Your task to perform on an android device: Add "usb-a" to the cart on target, then select checkout. Image 0: 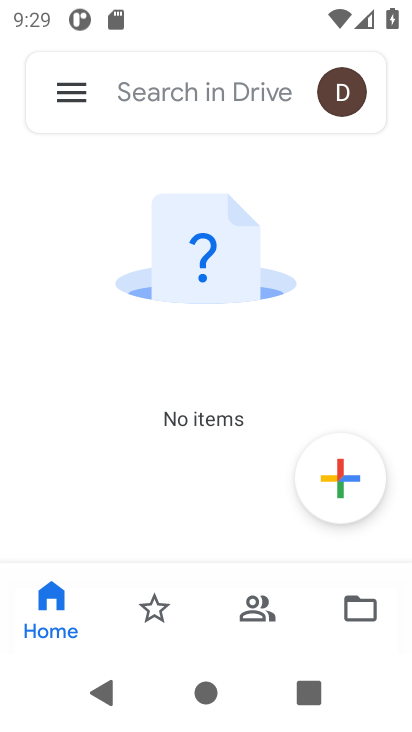
Step 0: press home button
Your task to perform on an android device: Add "usb-a" to the cart on target, then select checkout. Image 1: 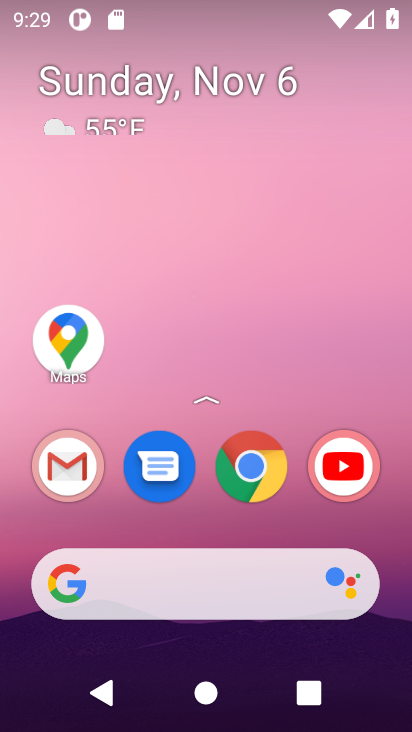
Step 1: click (265, 457)
Your task to perform on an android device: Add "usb-a" to the cart on target, then select checkout. Image 2: 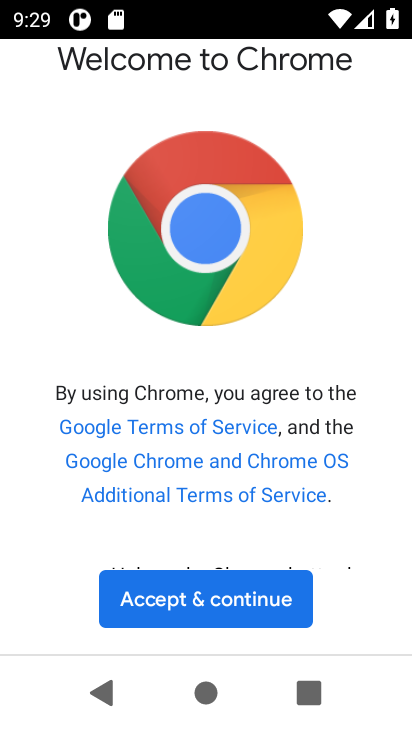
Step 2: click (165, 598)
Your task to perform on an android device: Add "usb-a" to the cart on target, then select checkout. Image 3: 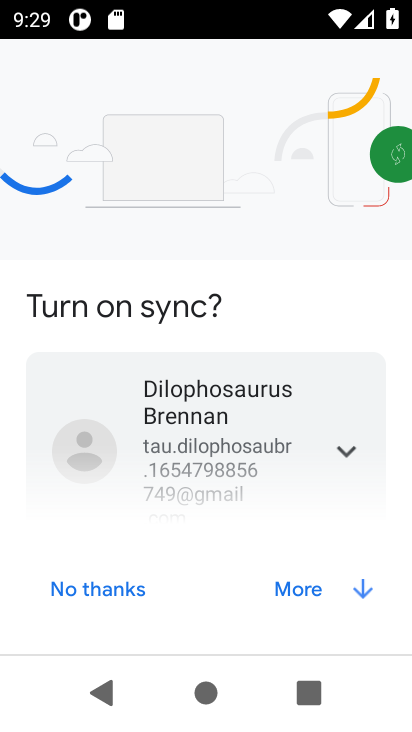
Step 3: press home button
Your task to perform on an android device: Add "usb-a" to the cart on target, then select checkout. Image 4: 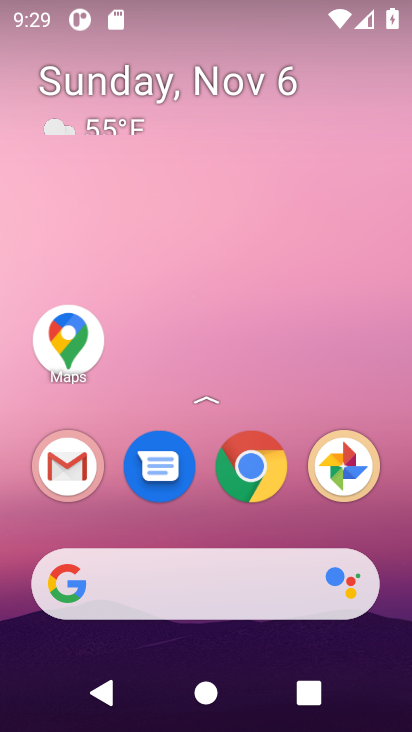
Step 4: click (233, 443)
Your task to perform on an android device: Add "usb-a" to the cart on target, then select checkout. Image 5: 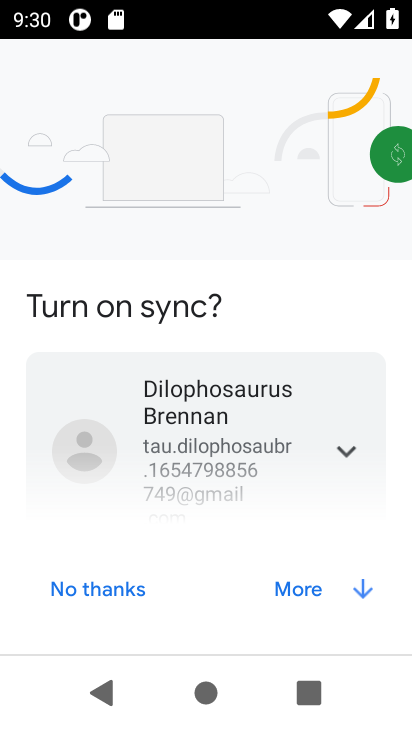
Step 5: click (275, 604)
Your task to perform on an android device: Add "usb-a" to the cart on target, then select checkout. Image 6: 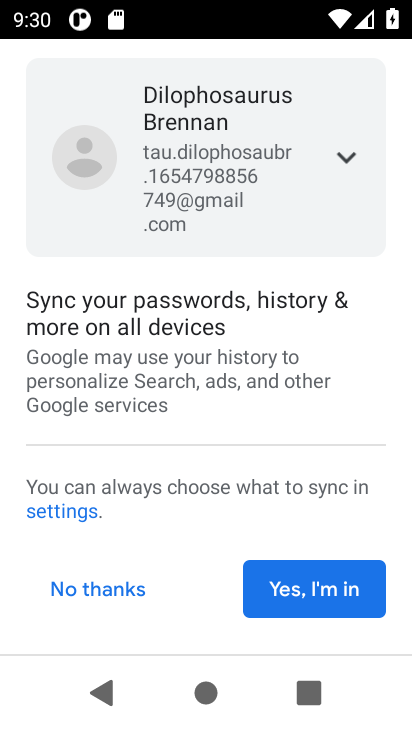
Step 6: click (320, 595)
Your task to perform on an android device: Add "usb-a" to the cart on target, then select checkout. Image 7: 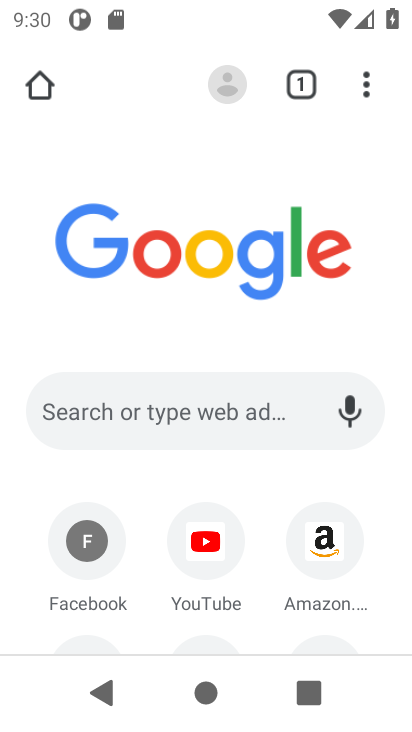
Step 7: click (143, 394)
Your task to perform on an android device: Add "usb-a" to the cart on target, then select checkout. Image 8: 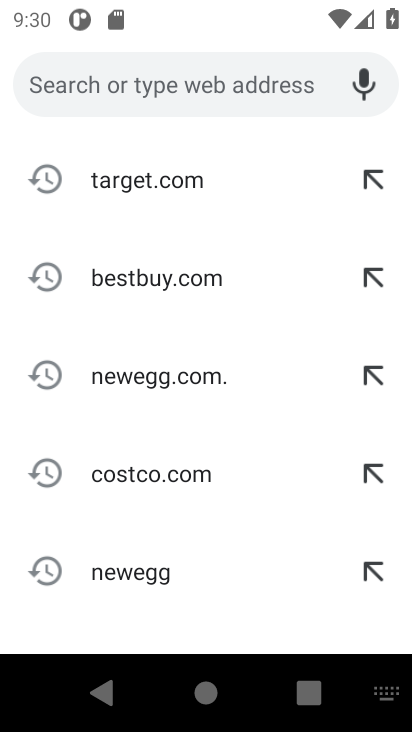
Step 8: click (94, 162)
Your task to perform on an android device: Add "usb-a" to the cart on target, then select checkout. Image 9: 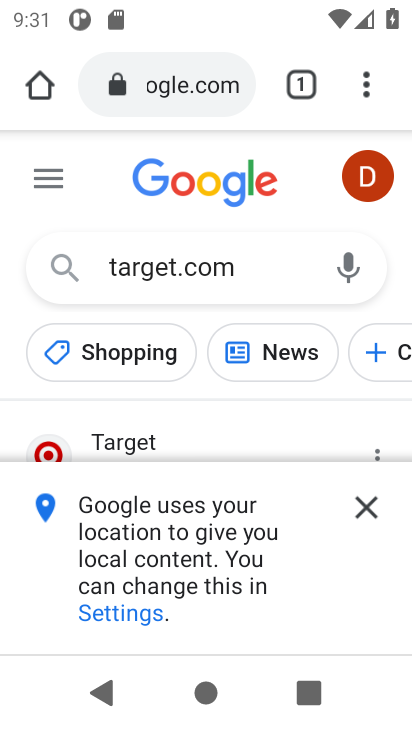
Step 9: click (362, 500)
Your task to perform on an android device: Add "usb-a" to the cart on target, then select checkout. Image 10: 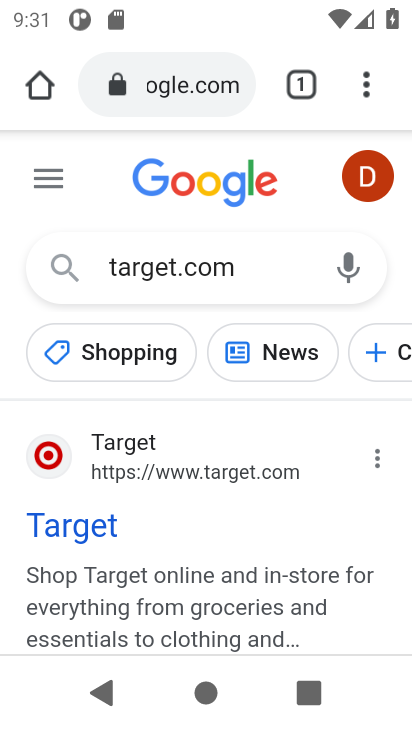
Step 10: click (87, 516)
Your task to perform on an android device: Add "usb-a" to the cart on target, then select checkout. Image 11: 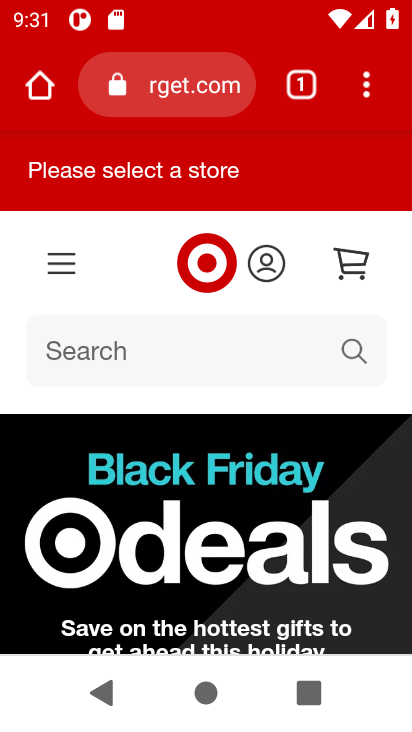
Step 11: click (124, 332)
Your task to perform on an android device: Add "usb-a" to the cart on target, then select checkout. Image 12: 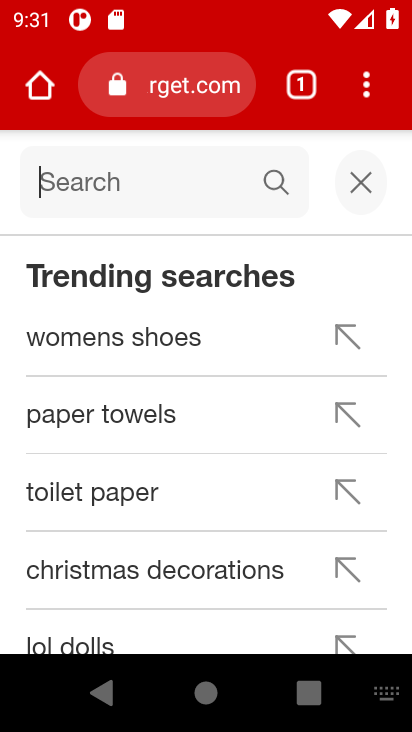
Step 12: click (134, 492)
Your task to perform on an android device: Add "usb-a" to the cart on target, then select checkout. Image 13: 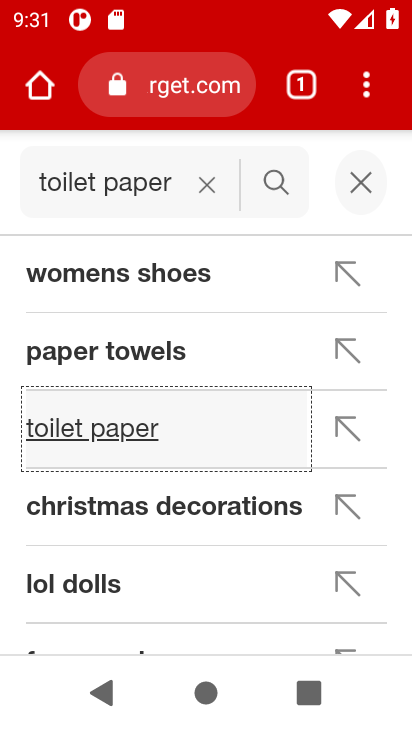
Step 13: click (88, 175)
Your task to perform on an android device: Add "usb-a" to the cart on target, then select checkout. Image 14: 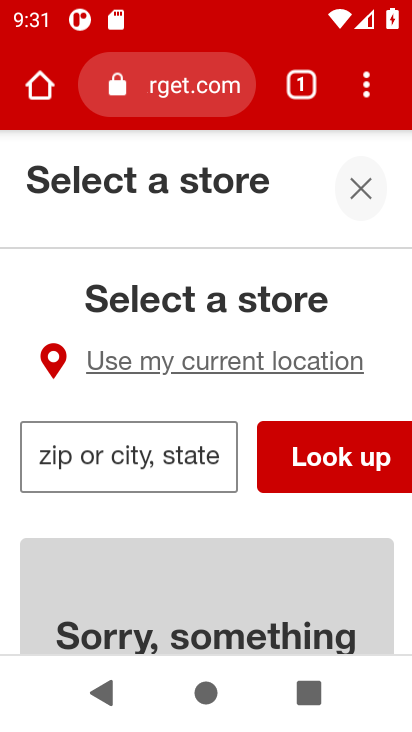
Step 14: type "usb-a"
Your task to perform on an android device: Add "usb-a" to the cart on target, then select checkout. Image 15: 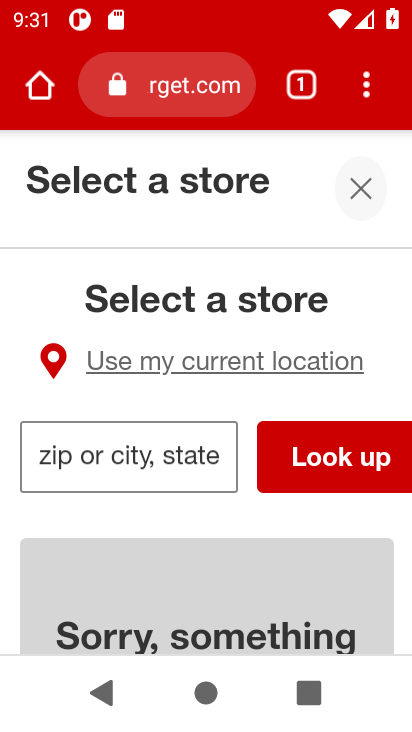
Step 15: task complete